Your task to perform on an android device: Open calendar and show me the third week of next month Image 0: 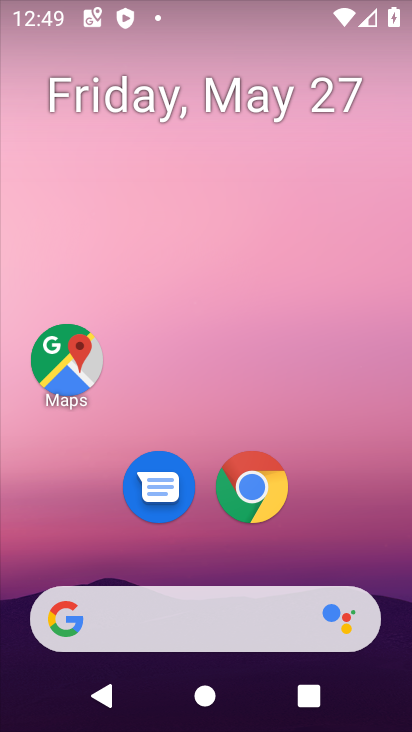
Step 0: drag from (232, 524) to (232, 140)
Your task to perform on an android device: Open calendar and show me the third week of next month Image 1: 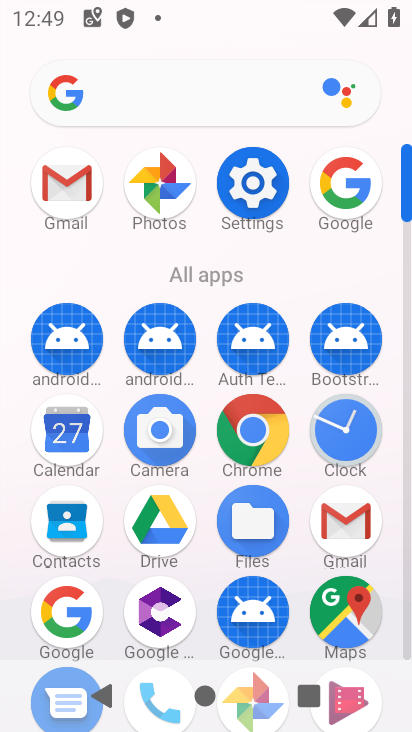
Step 1: click (65, 434)
Your task to perform on an android device: Open calendar and show me the third week of next month Image 2: 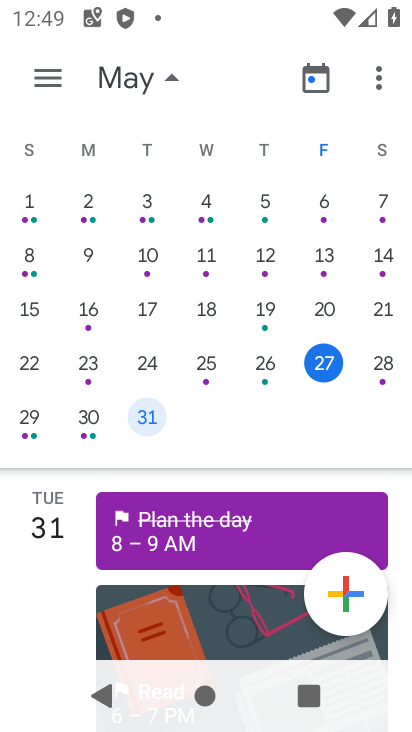
Step 2: drag from (366, 423) to (21, 407)
Your task to perform on an android device: Open calendar and show me the third week of next month Image 3: 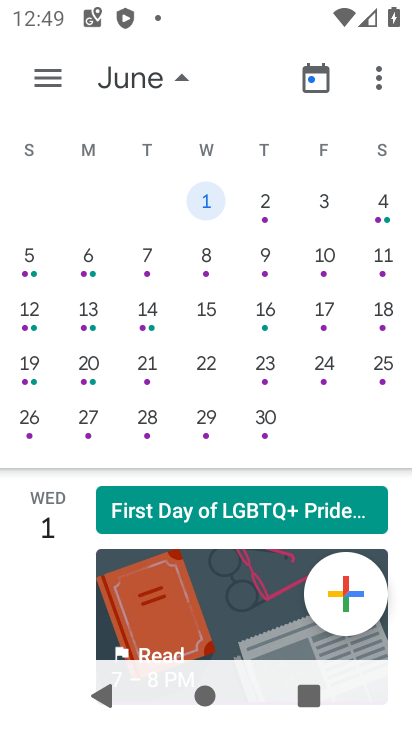
Step 3: click (206, 308)
Your task to perform on an android device: Open calendar and show me the third week of next month Image 4: 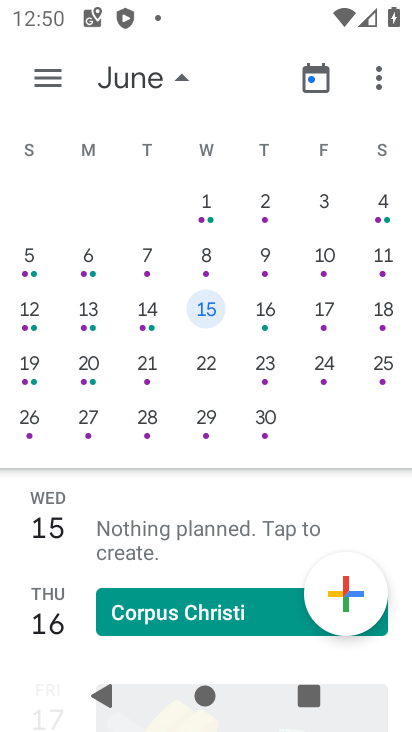
Step 4: task complete